Your task to perform on an android device: toggle data saver in the chrome app Image 0: 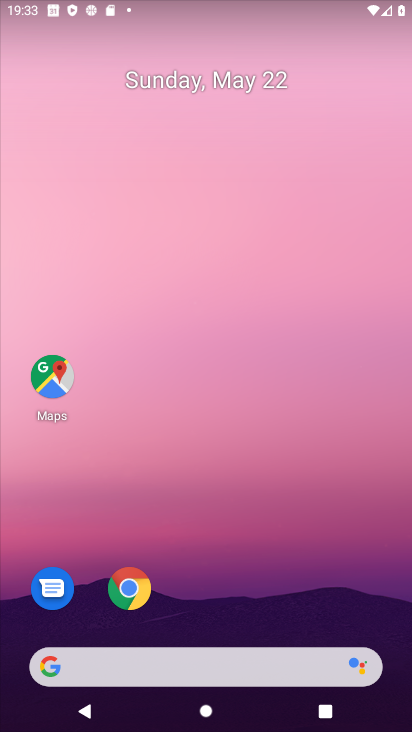
Step 0: click (129, 588)
Your task to perform on an android device: toggle data saver in the chrome app Image 1: 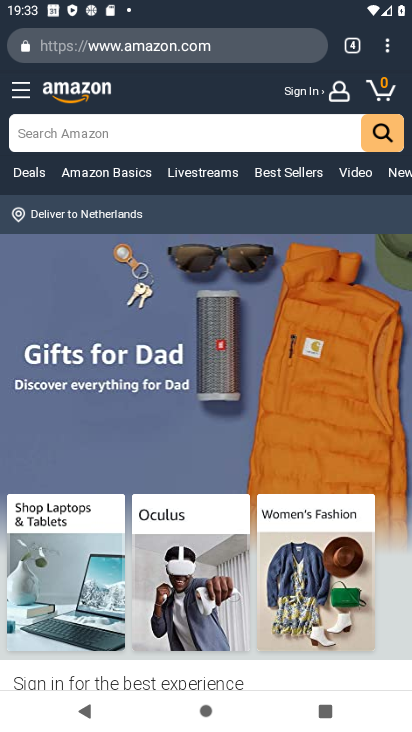
Step 1: click (389, 49)
Your task to perform on an android device: toggle data saver in the chrome app Image 2: 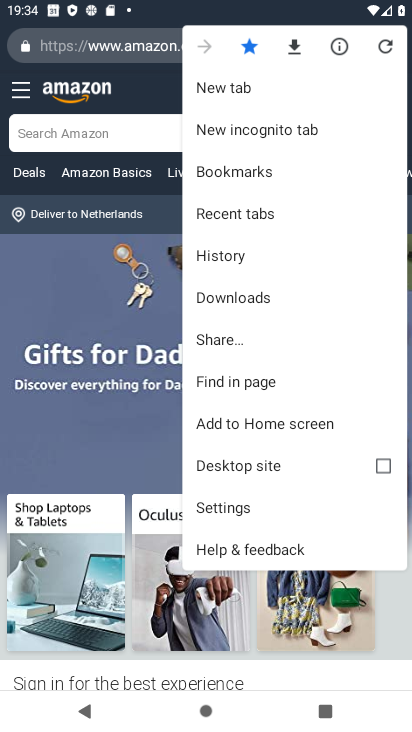
Step 2: click (230, 505)
Your task to perform on an android device: toggle data saver in the chrome app Image 3: 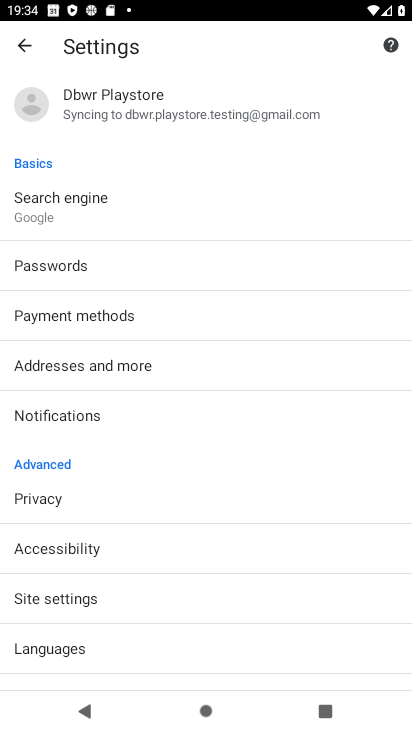
Step 3: drag from (118, 596) to (101, 444)
Your task to perform on an android device: toggle data saver in the chrome app Image 4: 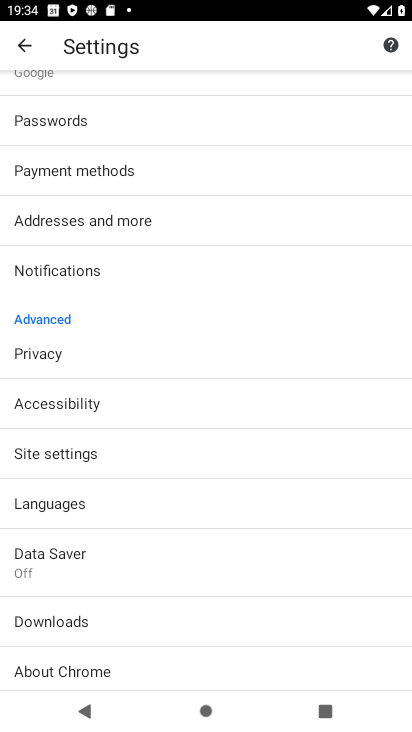
Step 4: click (69, 556)
Your task to perform on an android device: toggle data saver in the chrome app Image 5: 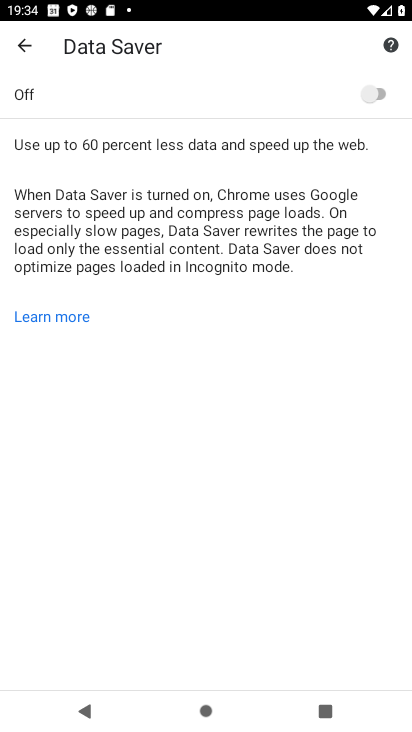
Step 5: click (365, 89)
Your task to perform on an android device: toggle data saver in the chrome app Image 6: 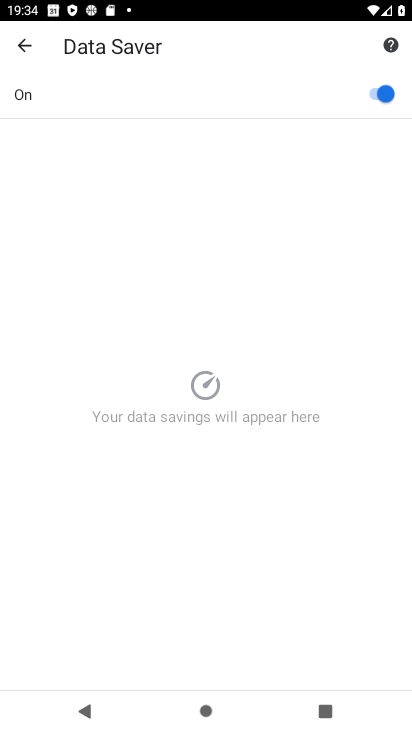
Step 6: task complete